Your task to perform on an android device: Empty the shopping cart on amazon. Add "dell xps" to the cart on amazon, then select checkout. Image 0: 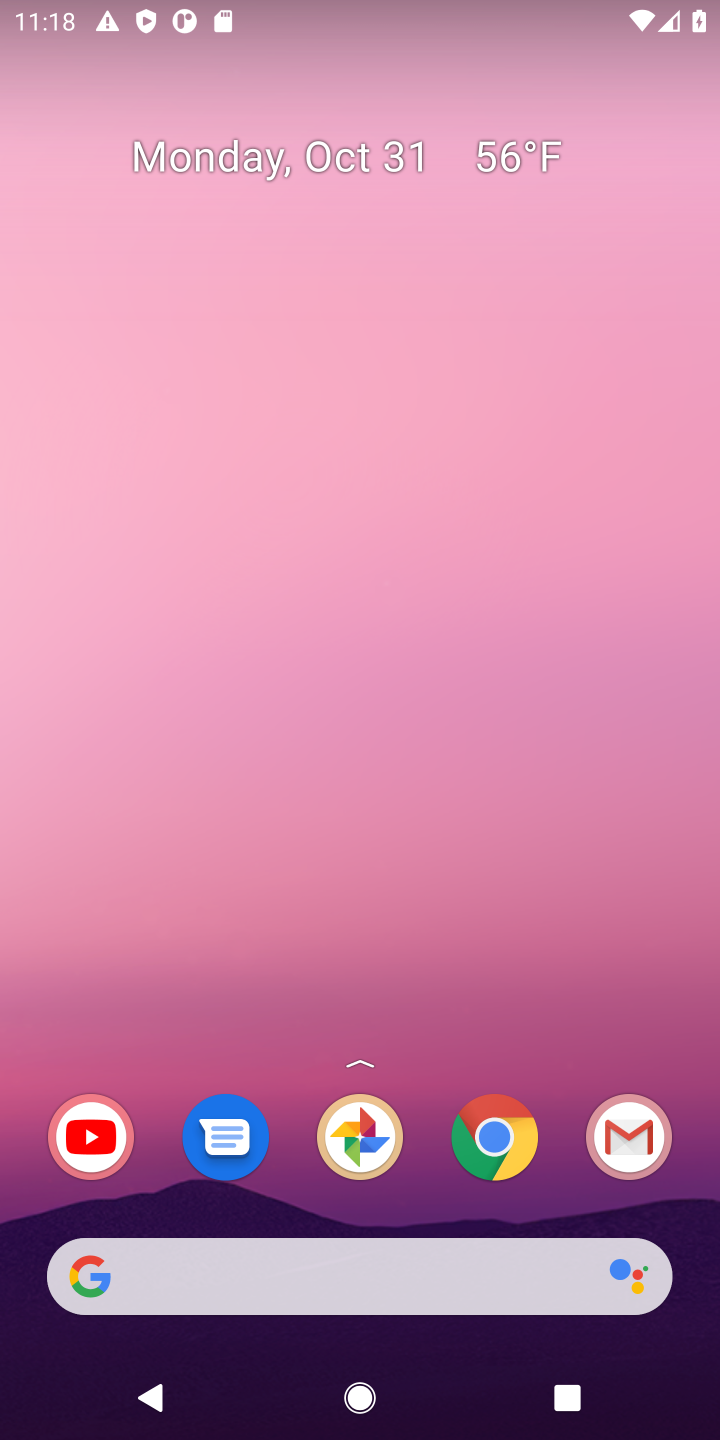
Step 0: click (496, 1139)
Your task to perform on an android device: Empty the shopping cart on amazon. Add "dell xps" to the cart on amazon, then select checkout. Image 1: 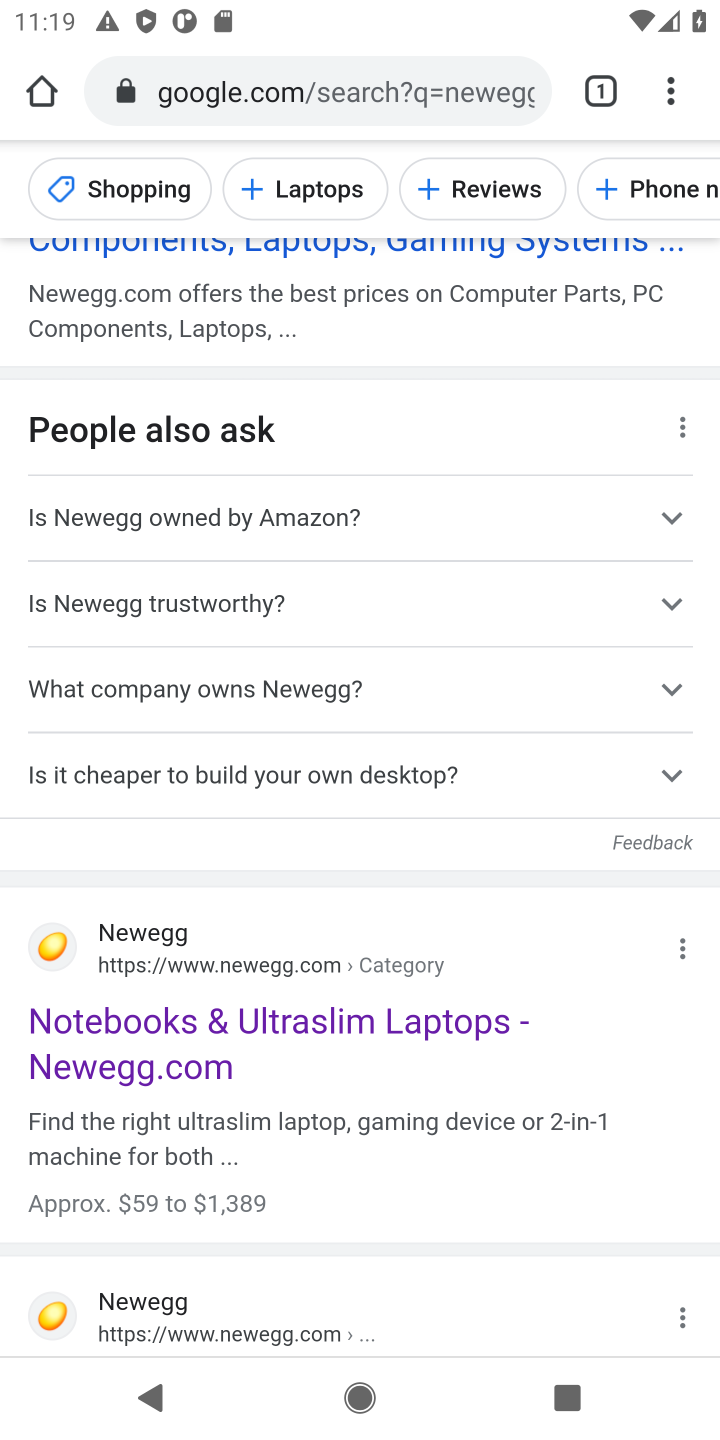
Step 1: click (407, 93)
Your task to perform on an android device: Empty the shopping cart on amazon. Add "dell xps" to the cart on amazon, then select checkout. Image 2: 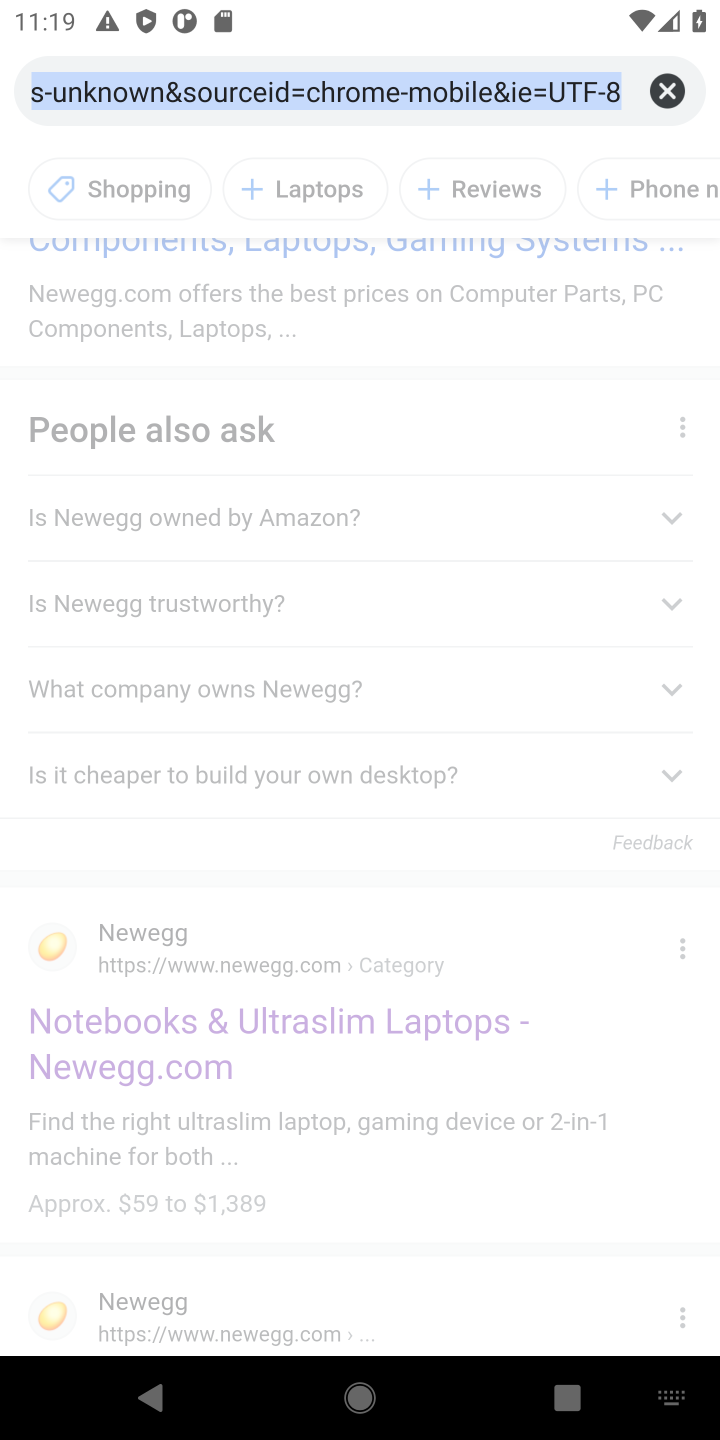
Step 2: click (664, 89)
Your task to perform on an android device: Empty the shopping cart on amazon. Add "dell xps" to the cart on amazon, then select checkout. Image 3: 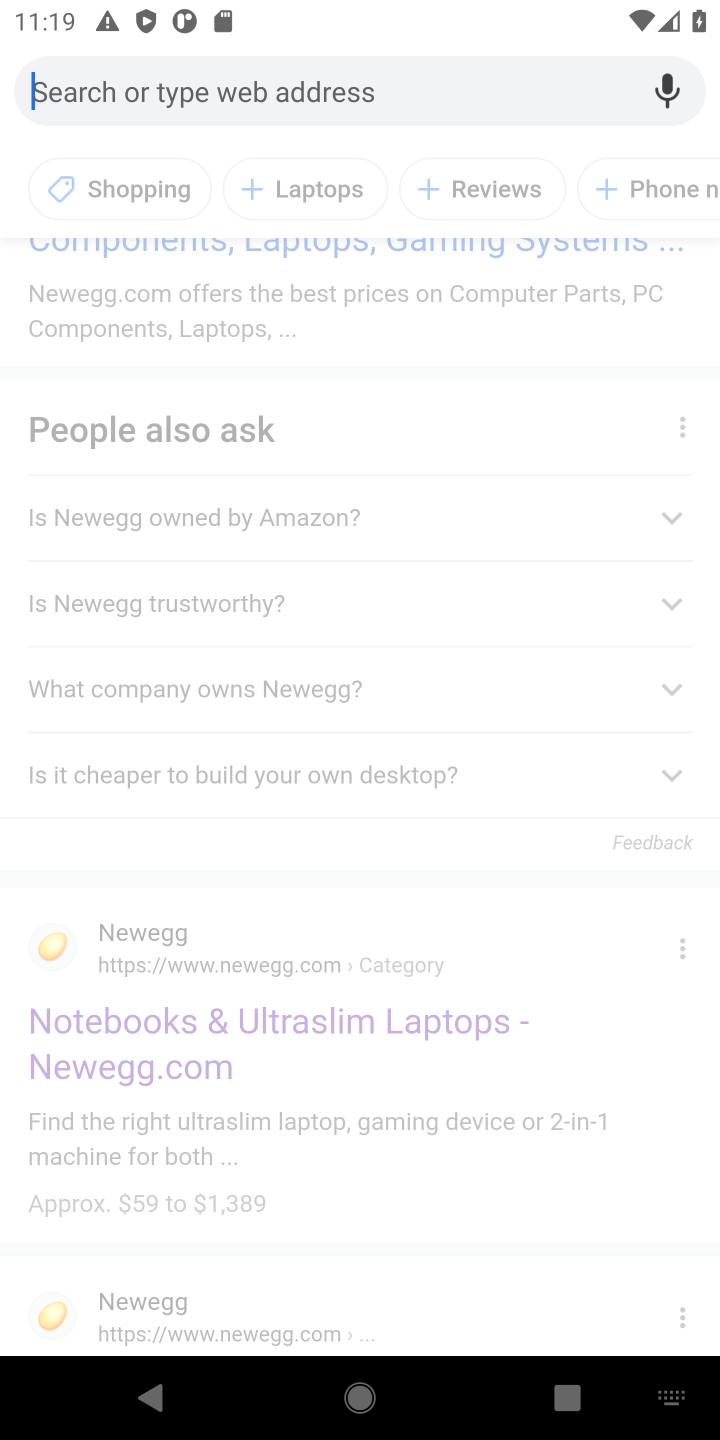
Step 3: type "amazon"
Your task to perform on an android device: Empty the shopping cart on amazon. Add "dell xps" to the cart on amazon, then select checkout. Image 4: 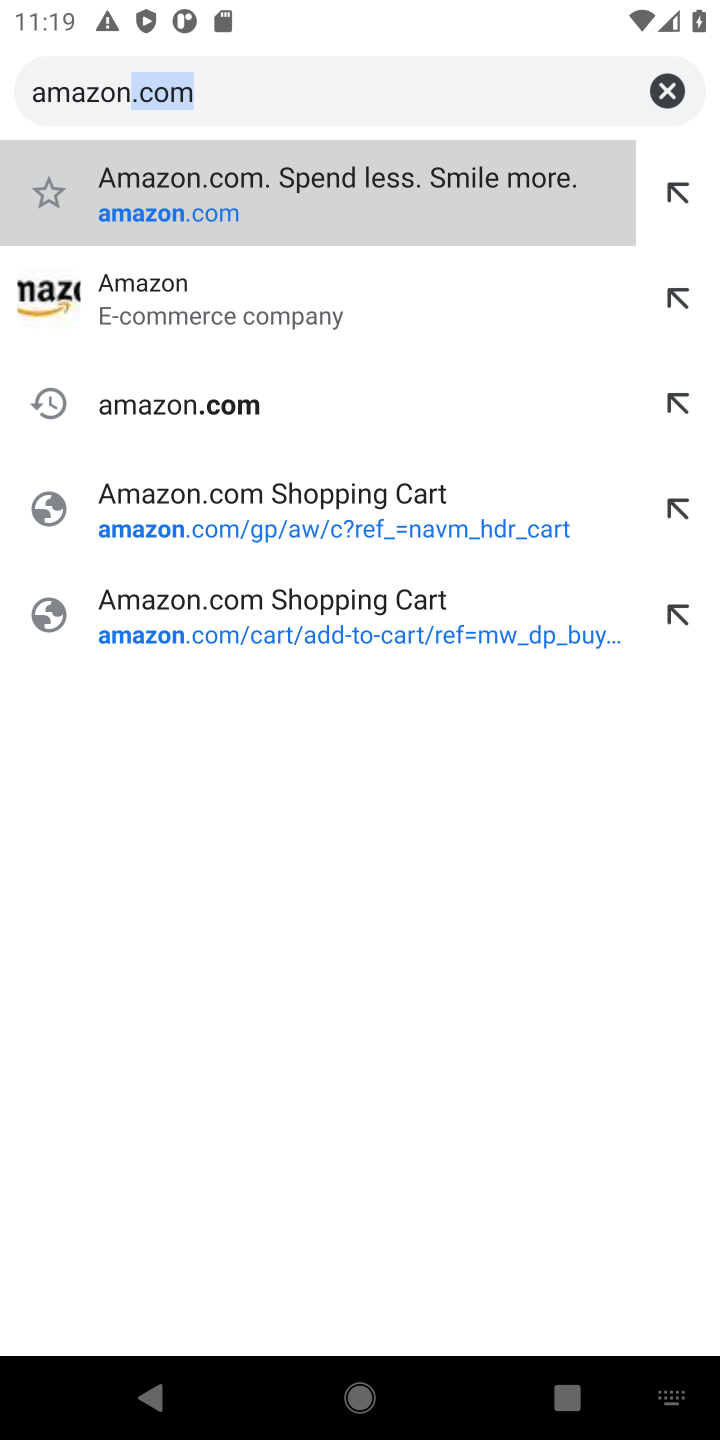
Step 4: click (213, 322)
Your task to perform on an android device: Empty the shopping cart on amazon. Add "dell xps" to the cart on amazon, then select checkout. Image 5: 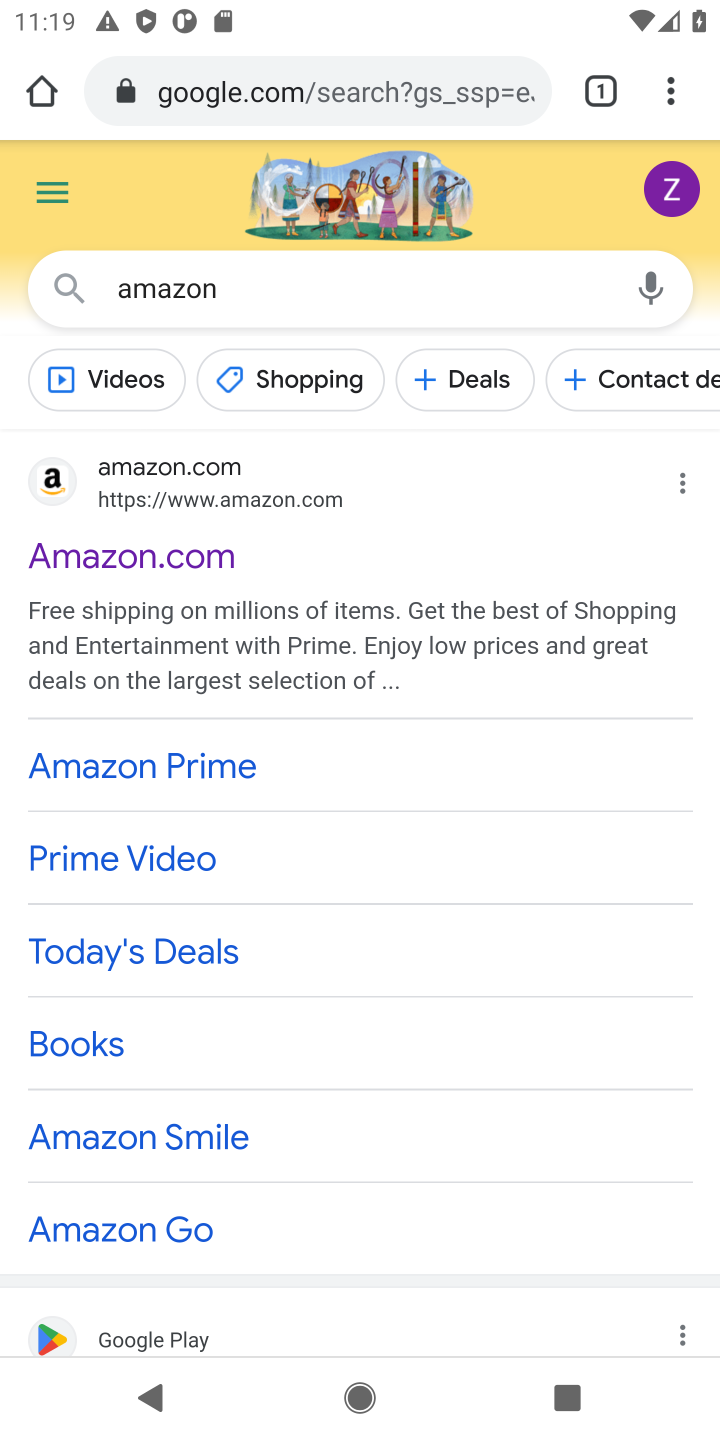
Step 5: click (182, 561)
Your task to perform on an android device: Empty the shopping cart on amazon. Add "dell xps" to the cart on amazon, then select checkout. Image 6: 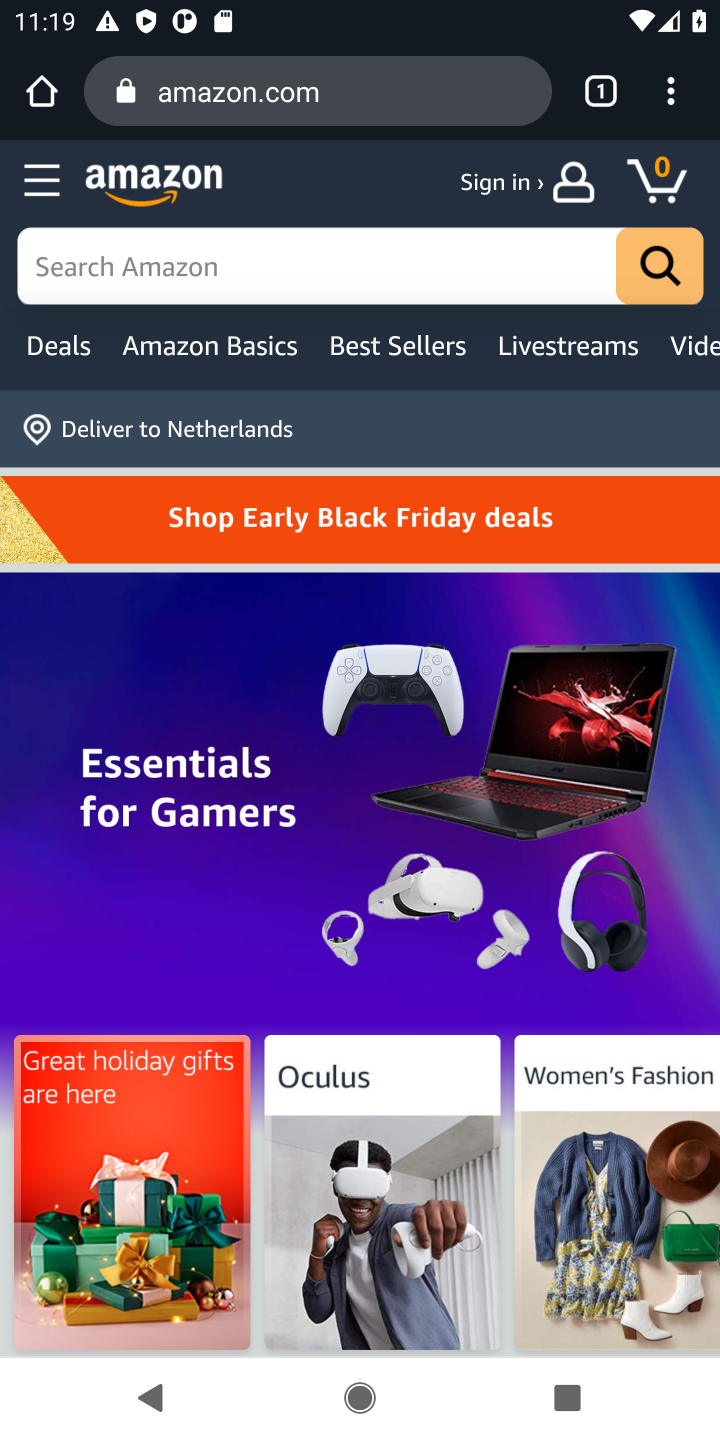
Step 6: click (664, 191)
Your task to perform on an android device: Empty the shopping cart on amazon. Add "dell xps" to the cart on amazon, then select checkout. Image 7: 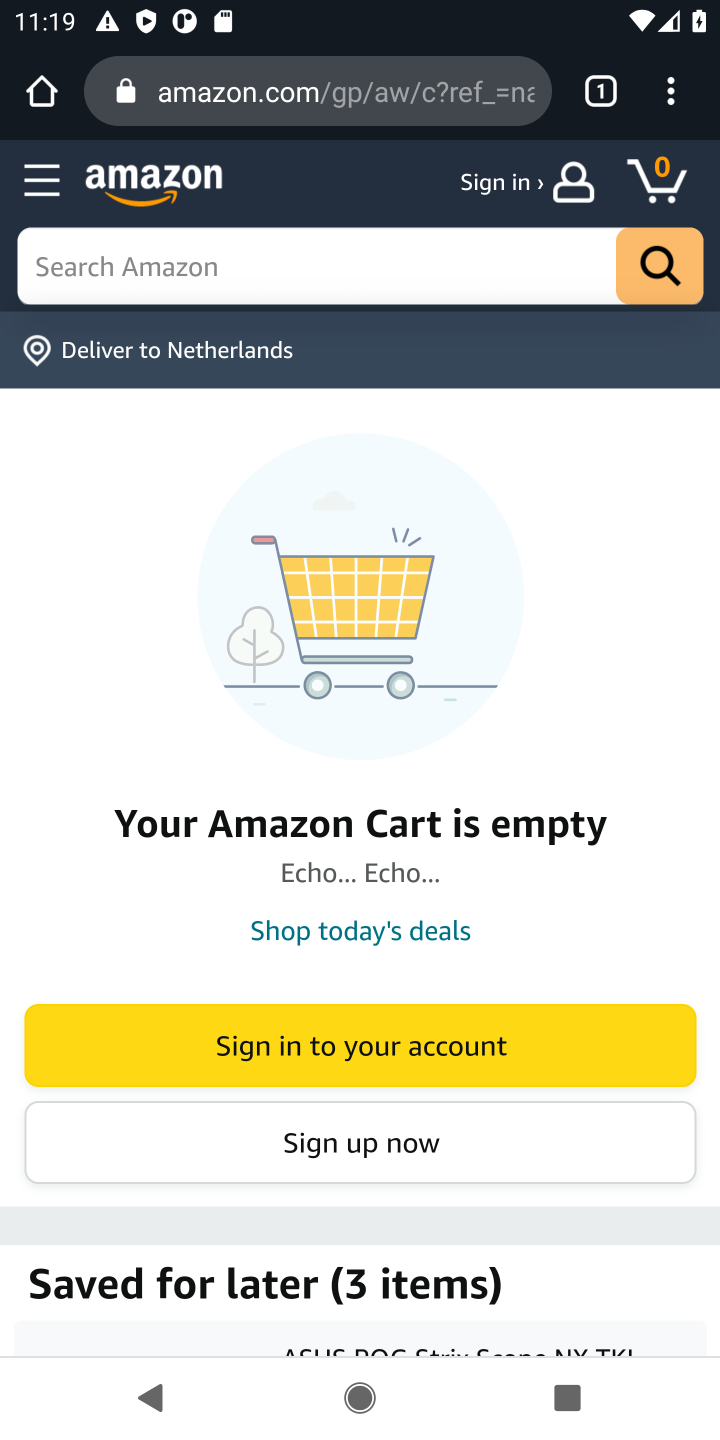
Step 7: click (339, 275)
Your task to perform on an android device: Empty the shopping cart on amazon. Add "dell xps" to the cart on amazon, then select checkout. Image 8: 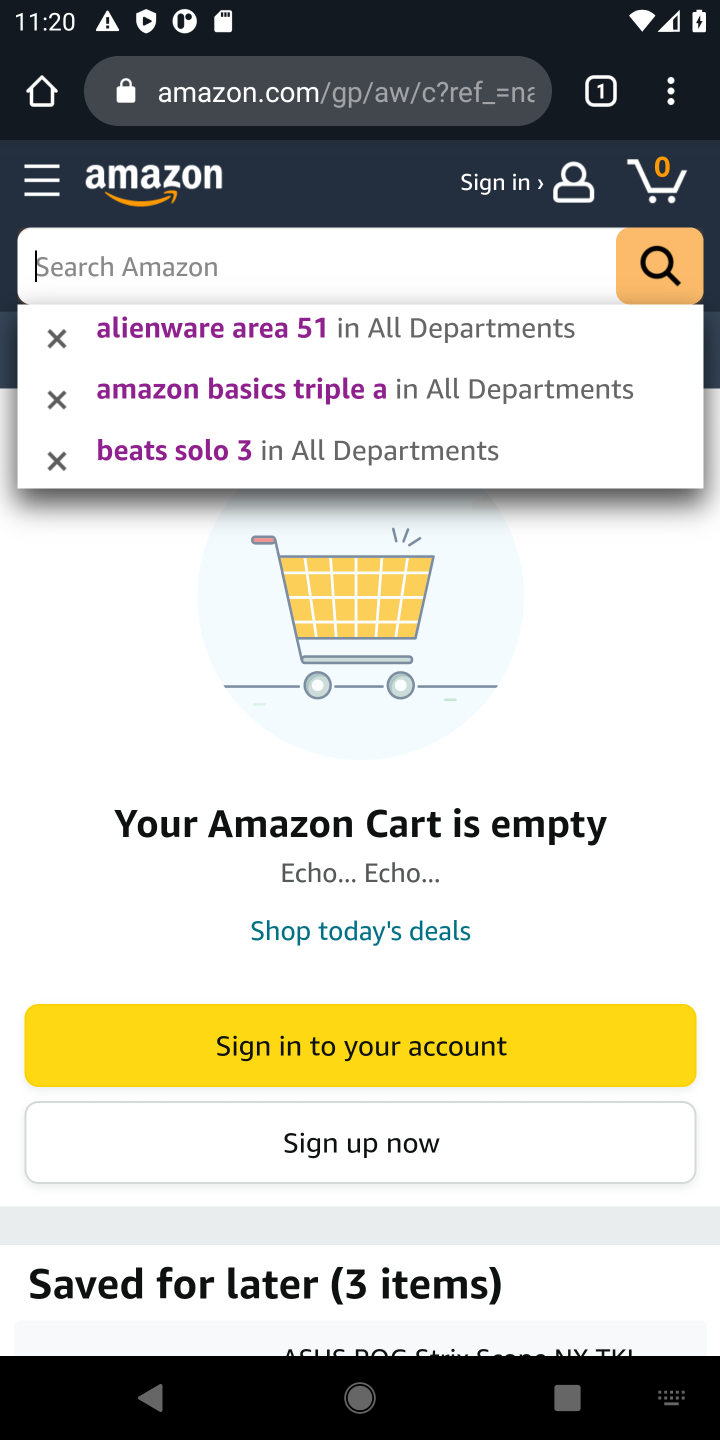
Step 8: type "dell xps"
Your task to perform on an android device: Empty the shopping cart on amazon. Add "dell xps" to the cart on amazon, then select checkout. Image 9: 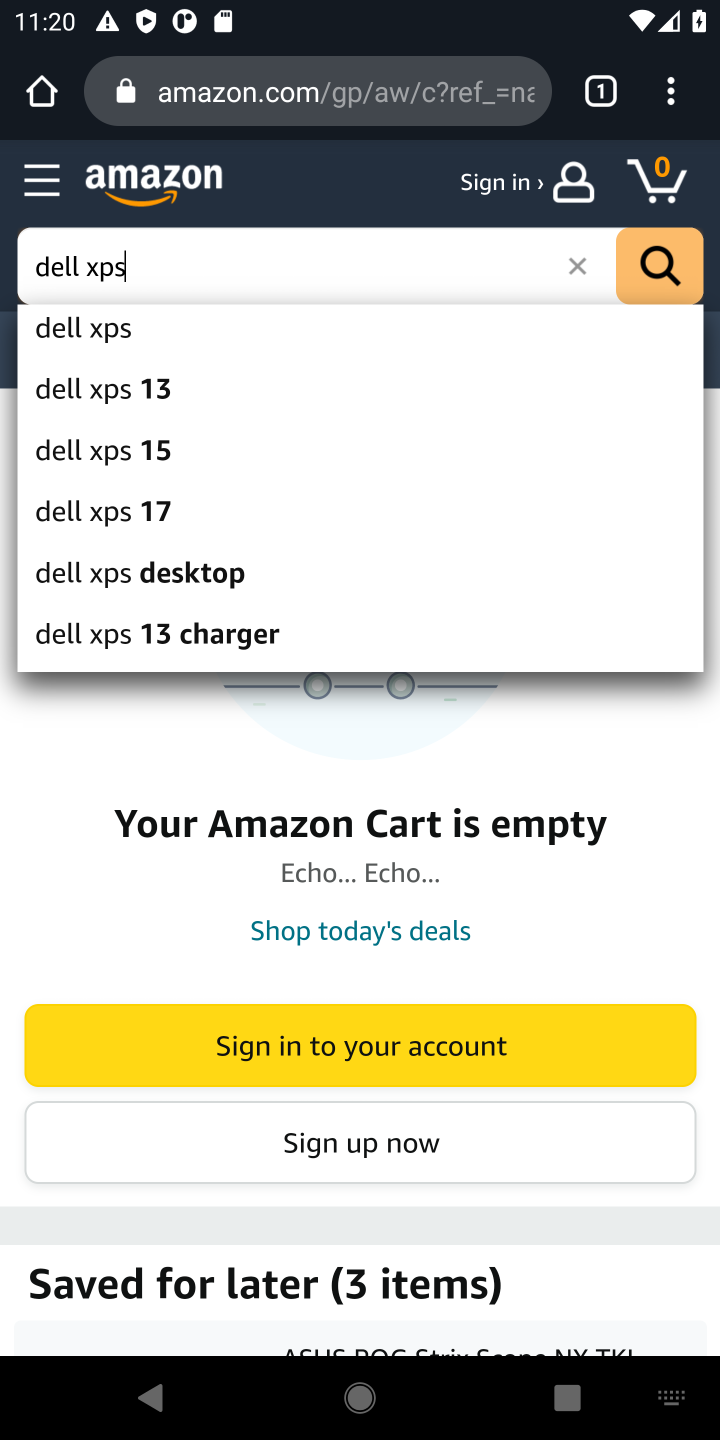
Step 9: click (56, 333)
Your task to perform on an android device: Empty the shopping cart on amazon. Add "dell xps" to the cart on amazon, then select checkout. Image 10: 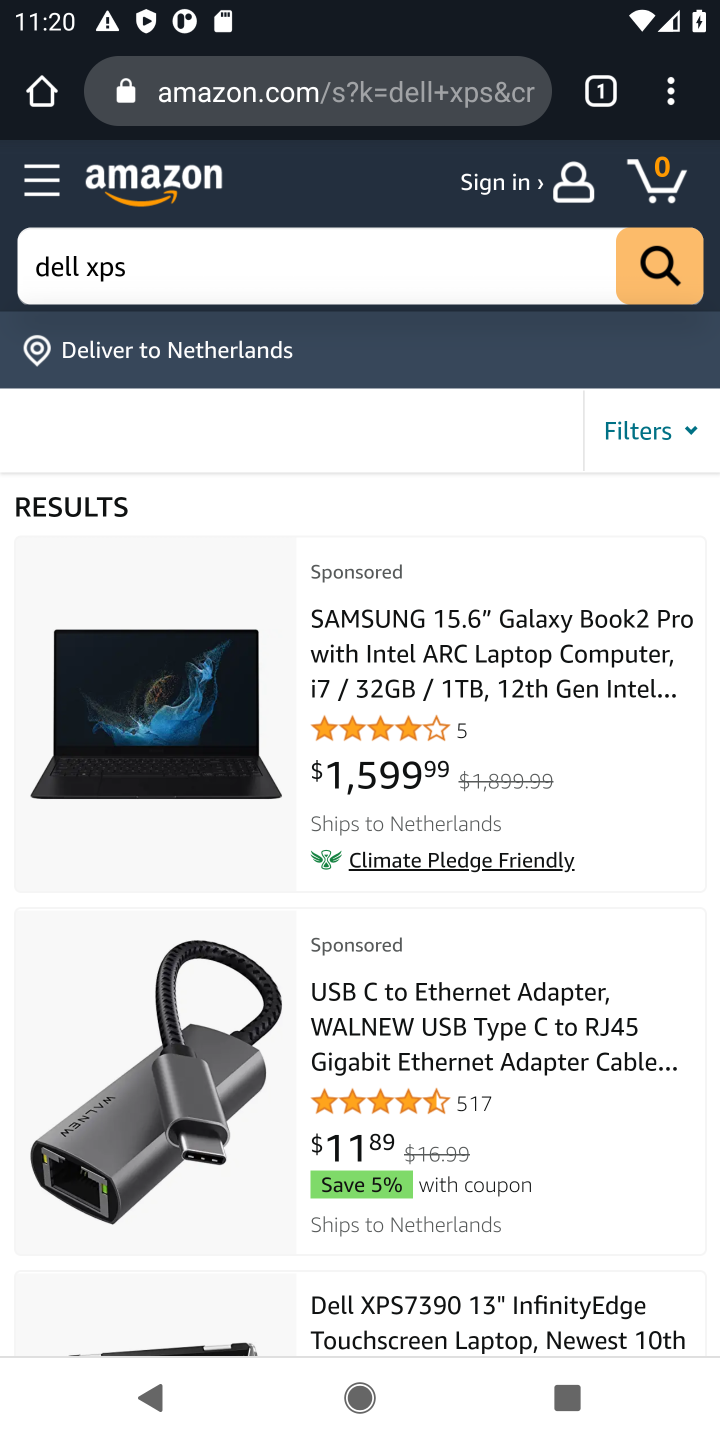
Step 10: drag from (486, 1173) to (567, 709)
Your task to perform on an android device: Empty the shopping cart on amazon. Add "dell xps" to the cart on amazon, then select checkout. Image 11: 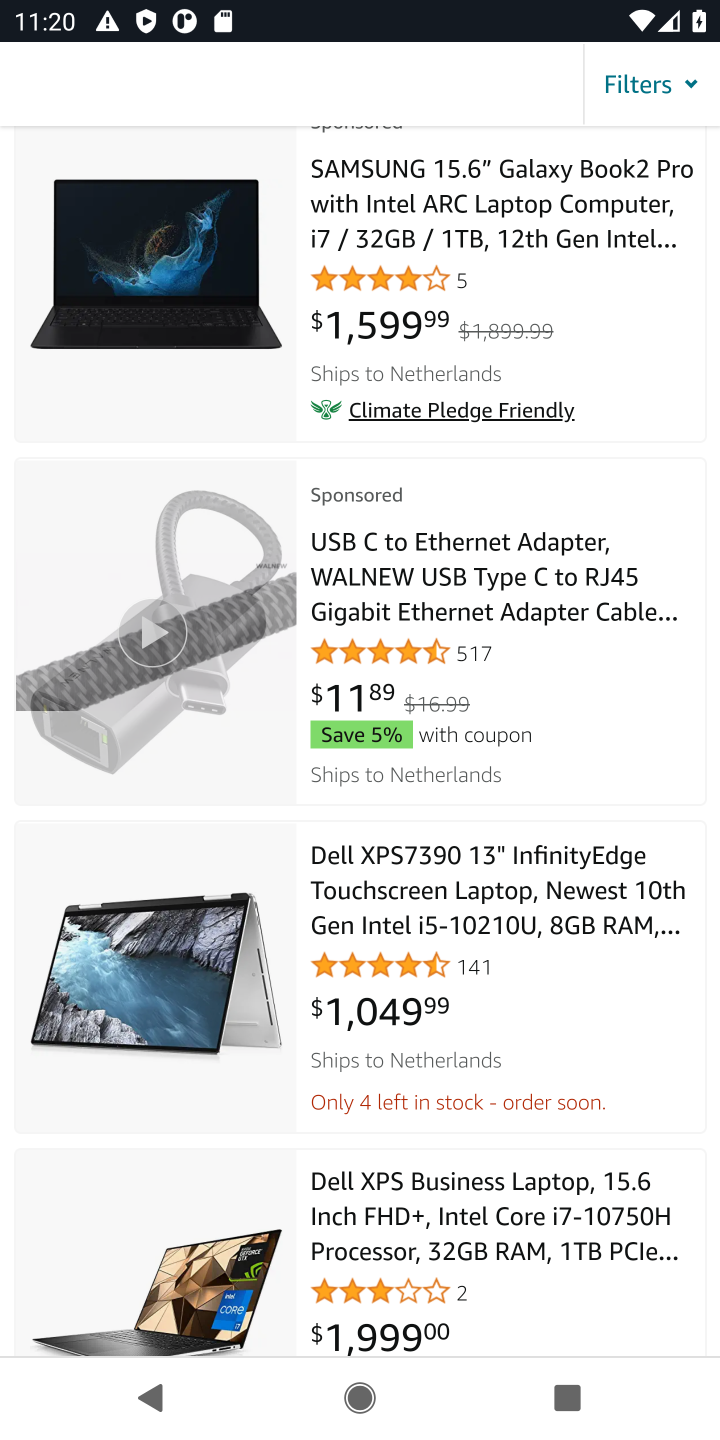
Step 11: click (396, 857)
Your task to perform on an android device: Empty the shopping cart on amazon. Add "dell xps" to the cart on amazon, then select checkout. Image 12: 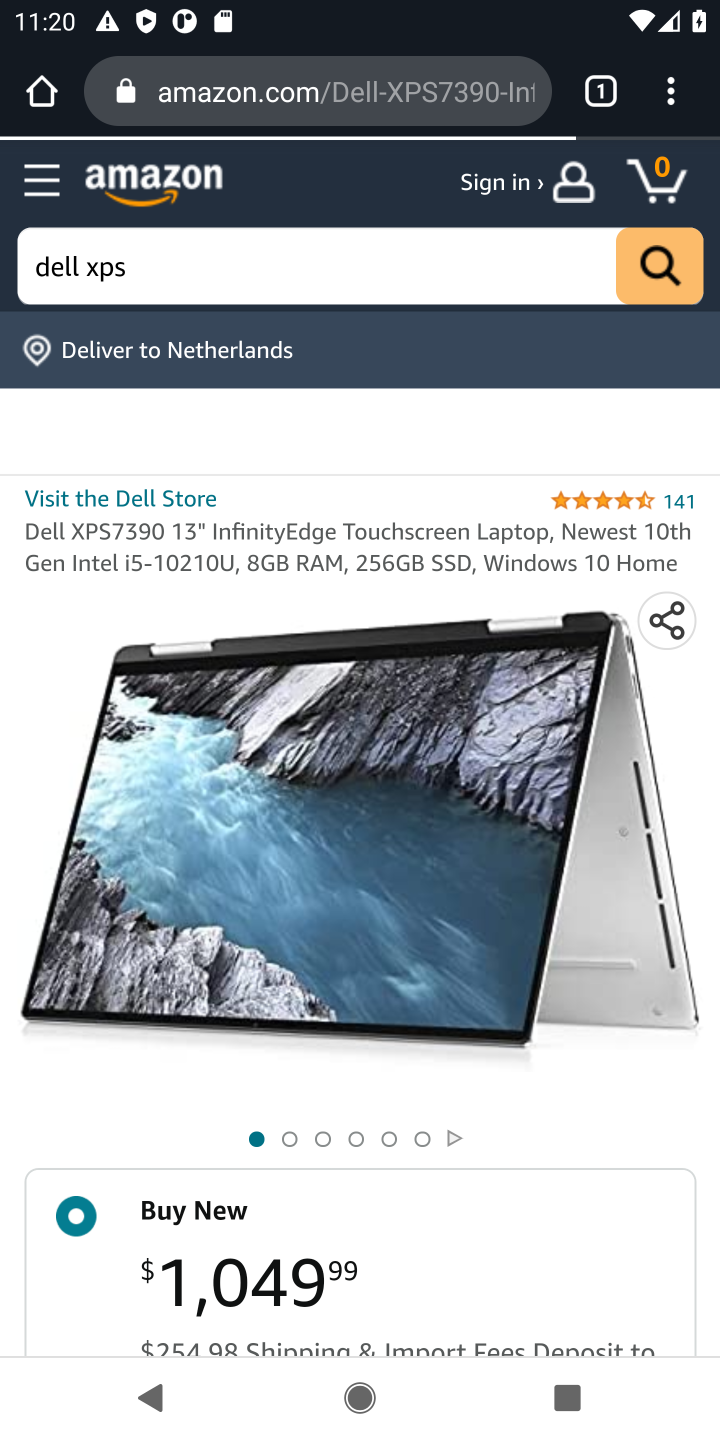
Step 12: drag from (409, 1089) to (405, 503)
Your task to perform on an android device: Empty the shopping cart on amazon. Add "dell xps" to the cart on amazon, then select checkout. Image 13: 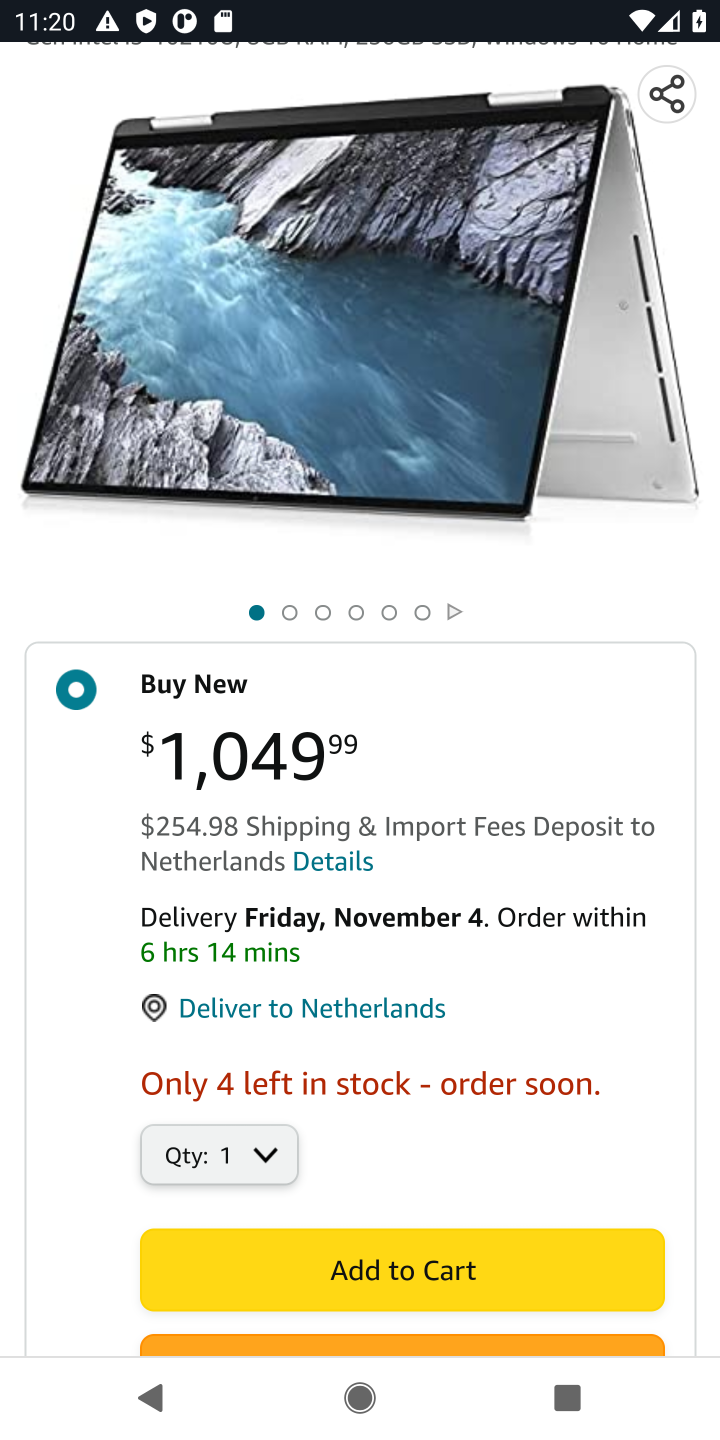
Step 13: click (413, 1268)
Your task to perform on an android device: Empty the shopping cart on amazon. Add "dell xps" to the cart on amazon, then select checkout. Image 14: 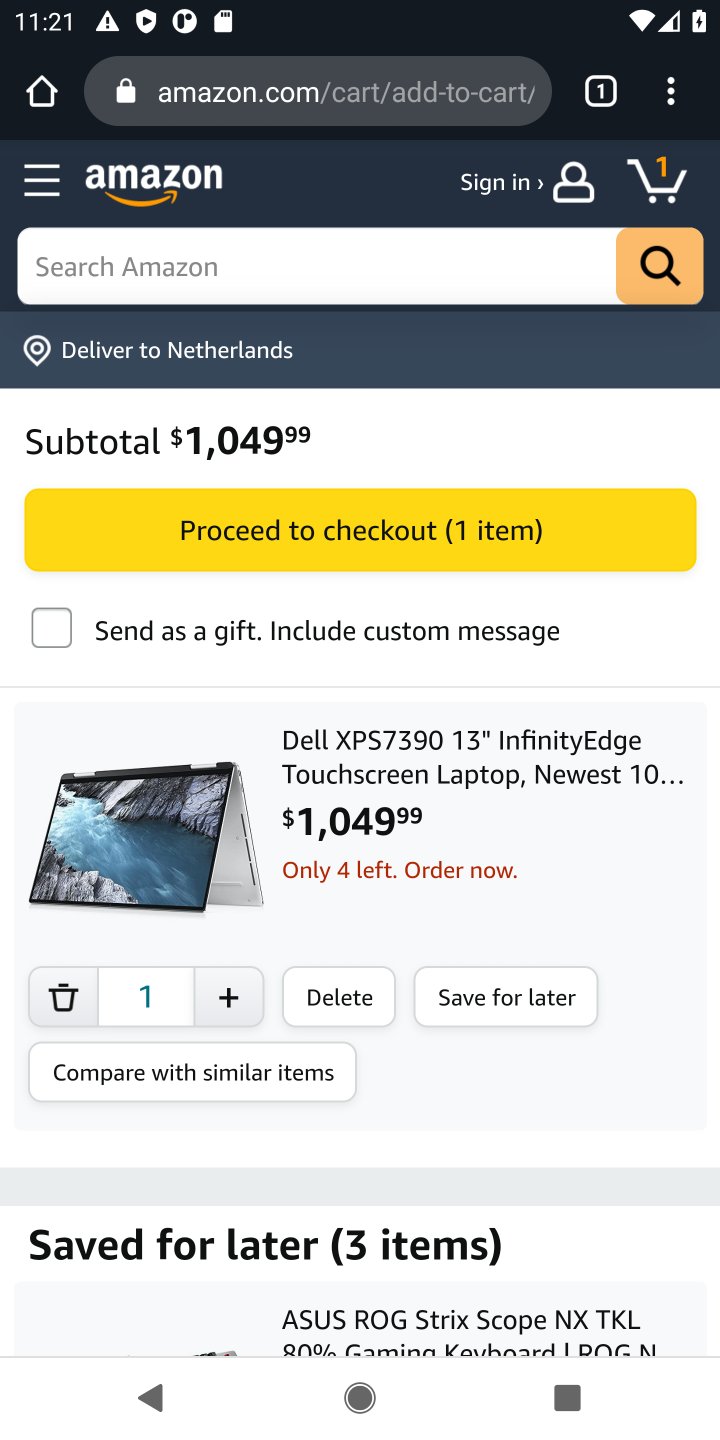
Step 14: click (328, 540)
Your task to perform on an android device: Empty the shopping cart on amazon. Add "dell xps" to the cart on amazon, then select checkout. Image 15: 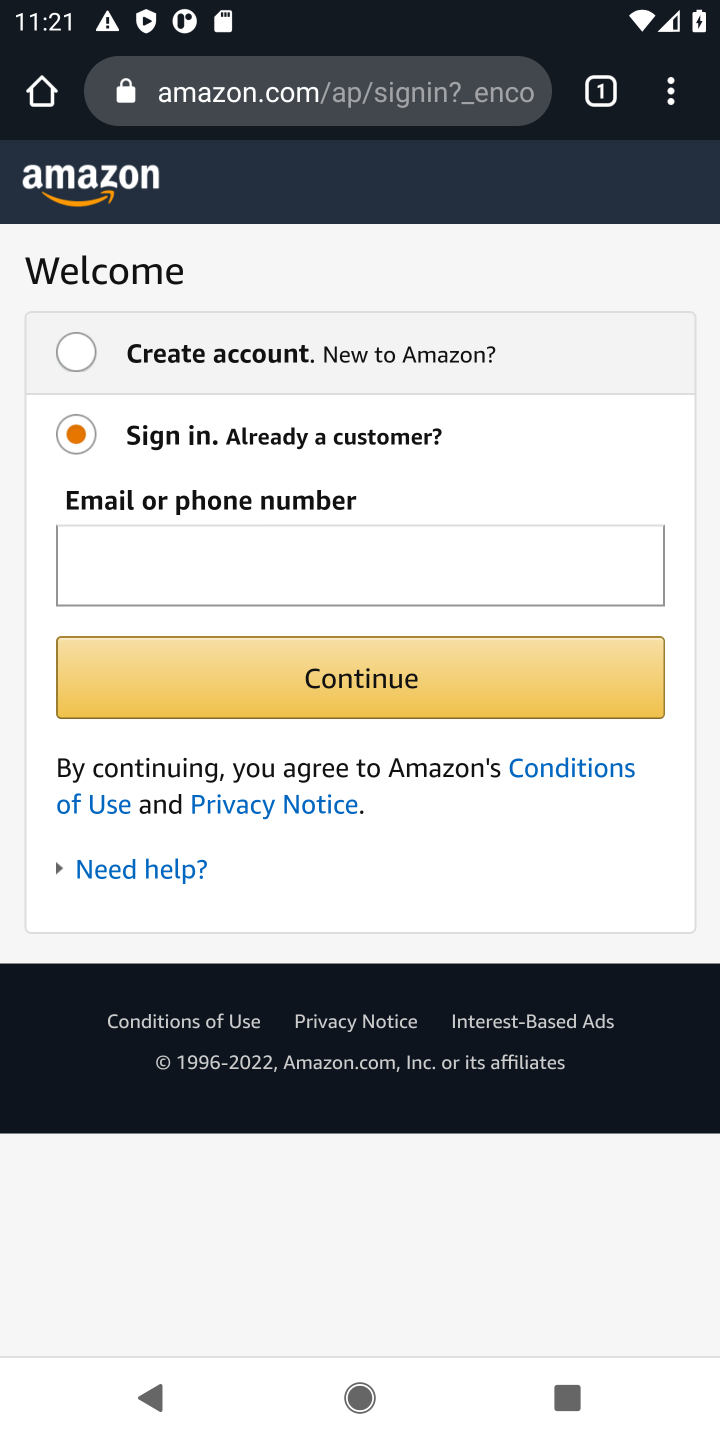
Step 15: task complete